Your task to perform on an android device: Open calendar and show me the first week of next month Image 0: 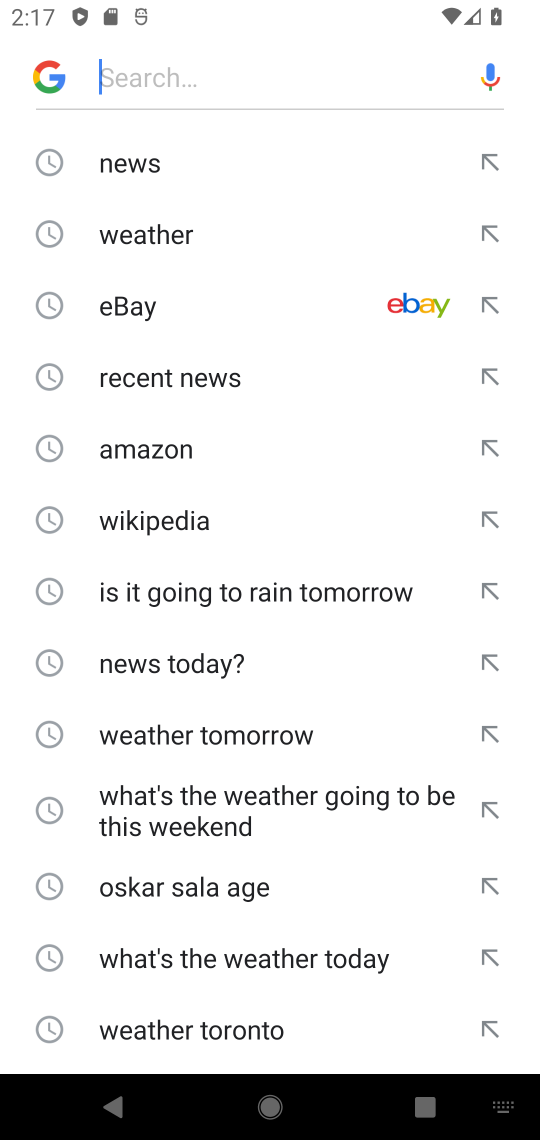
Step 0: press home button
Your task to perform on an android device: Open calendar and show me the first week of next month Image 1: 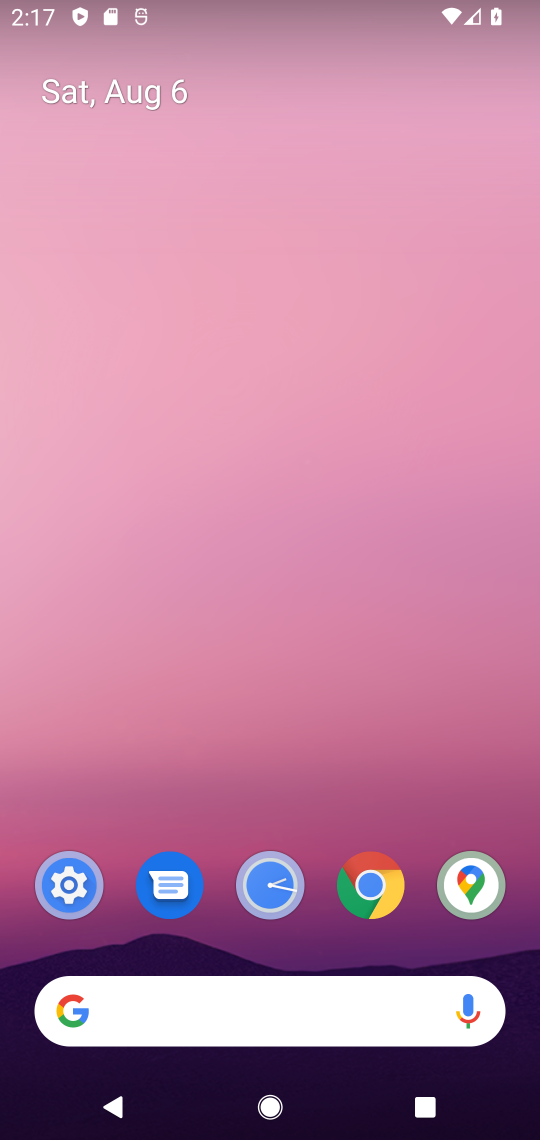
Step 1: drag from (511, 950) to (247, 46)
Your task to perform on an android device: Open calendar and show me the first week of next month Image 2: 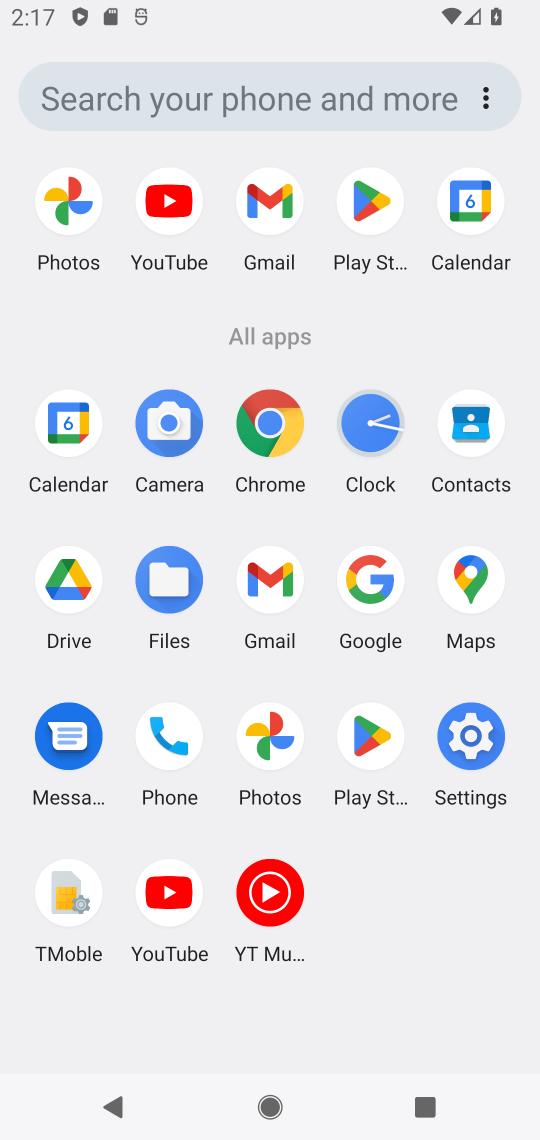
Step 2: click (73, 419)
Your task to perform on an android device: Open calendar and show me the first week of next month Image 3: 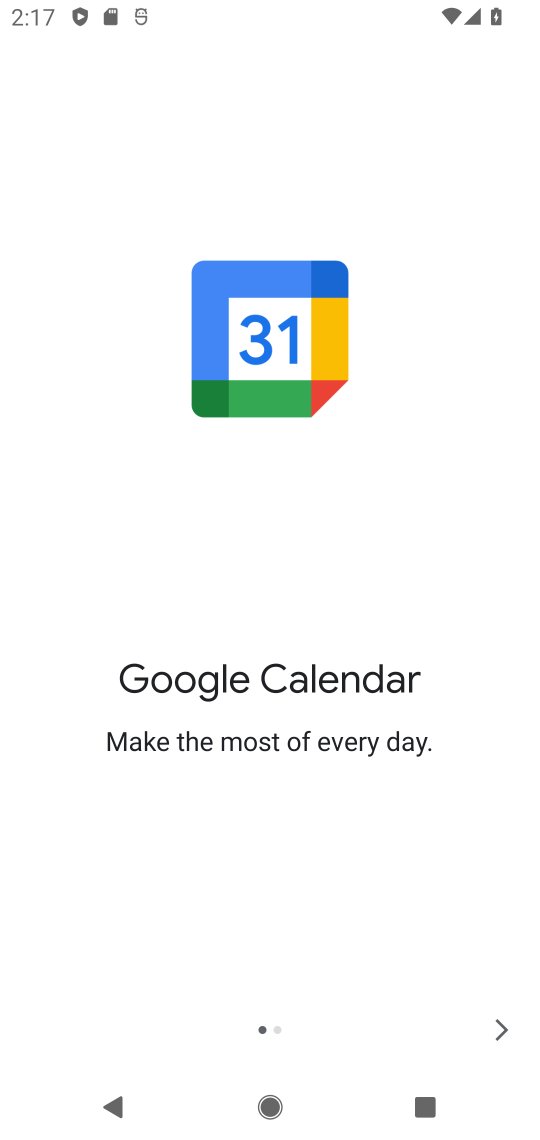
Step 3: click (500, 1022)
Your task to perform on an android device: Open calendar and show me the first week of next month Image 4: 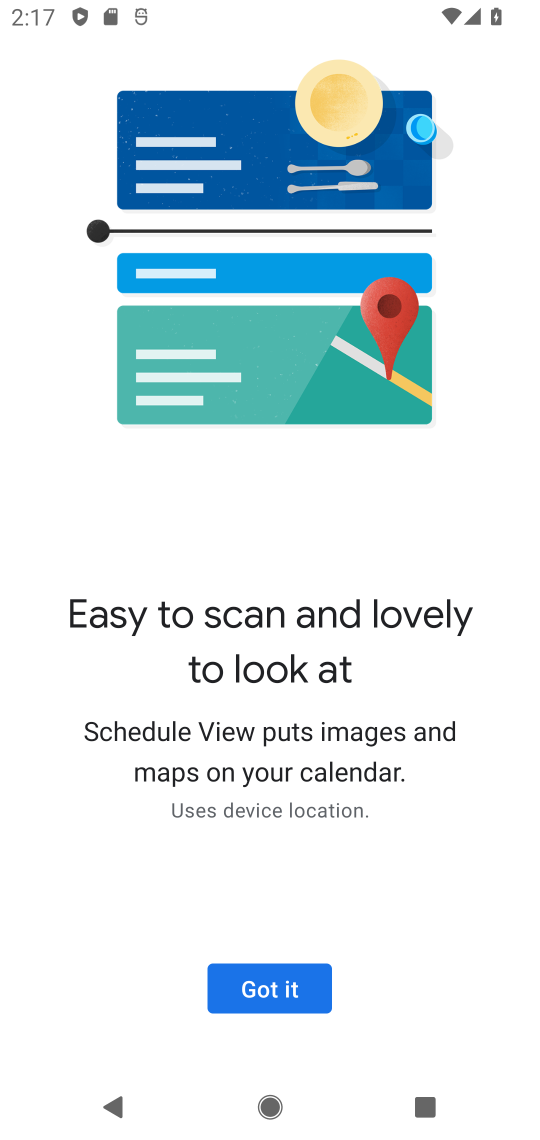
Step 4: click (258, 987)
Your task to perform on an android device: Open calendar and show me the first week of next month Image 5: 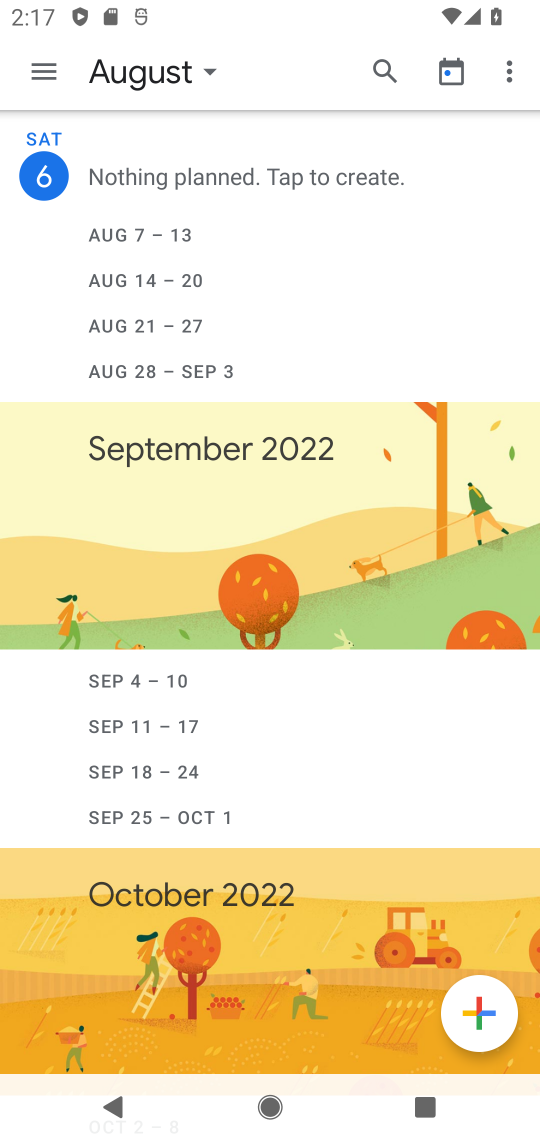
Step 5: click (121, 77)
Your task to perform on an android device: Open calendar and show me the first week of next month Image 6: 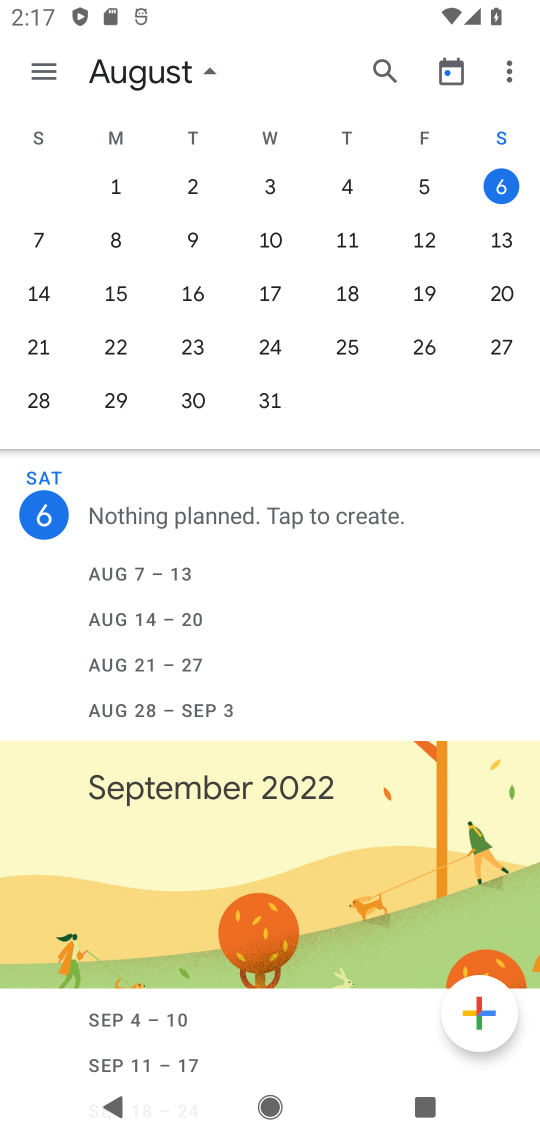
Step 6: drag from (511, 296) to (8, 163)
Your task to perform on an android device: Open calendar and show me the first week of next month Image 7: 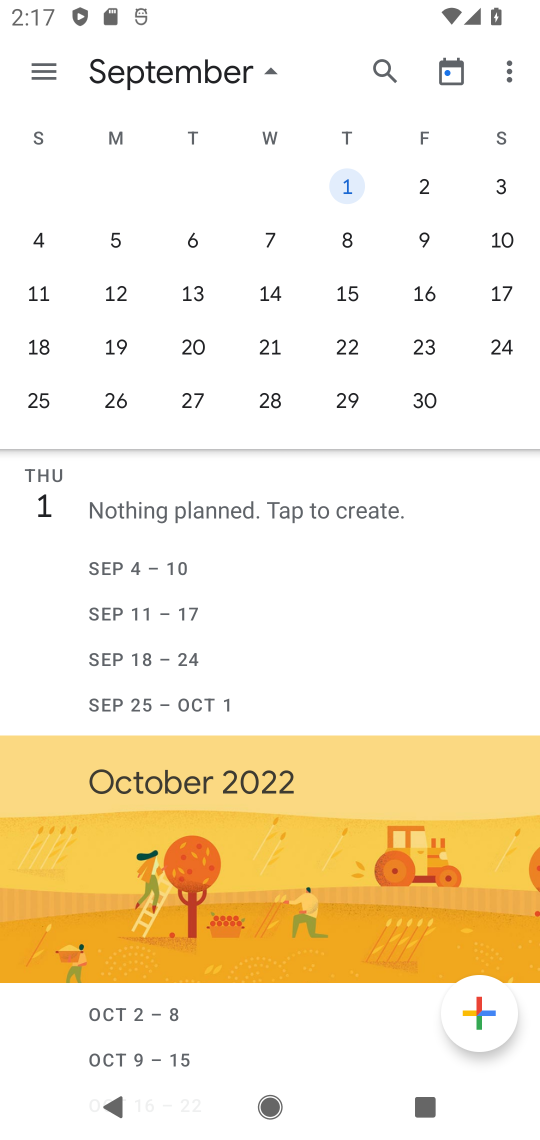
Step 7: click (46, 235)
Your task to perform on an android device: Open calendar and show me the first week of next month Image 8: 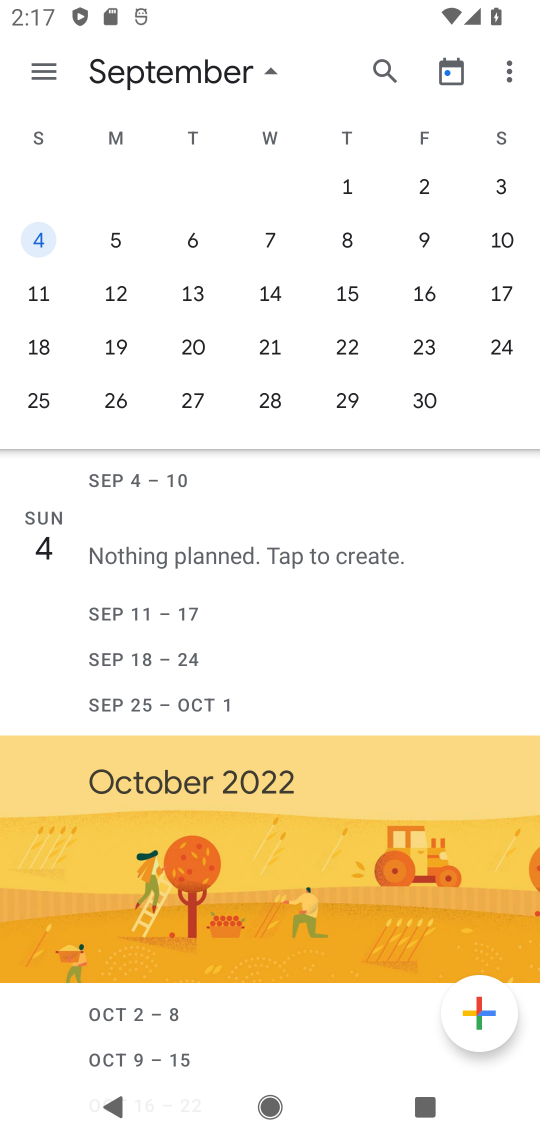
Step 8: task complete